Your task to perform on an android device: Open calendar and show me the third week of next month Image 0: 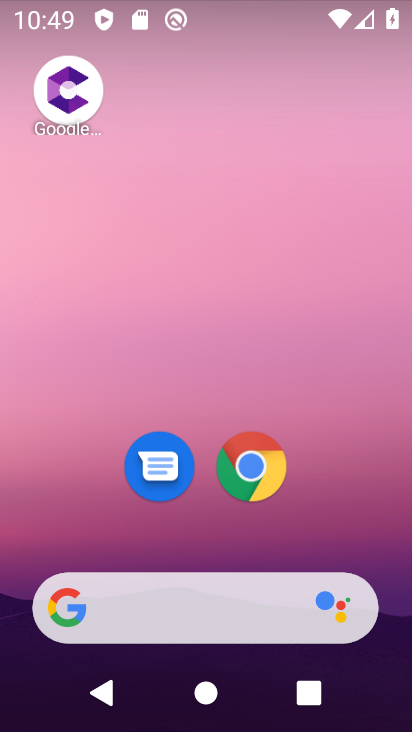
Step 0: drag from (189, 550) to (363, 6)
Your task to perform on an android device: Open calendar and show me the third week of next month Image 1: 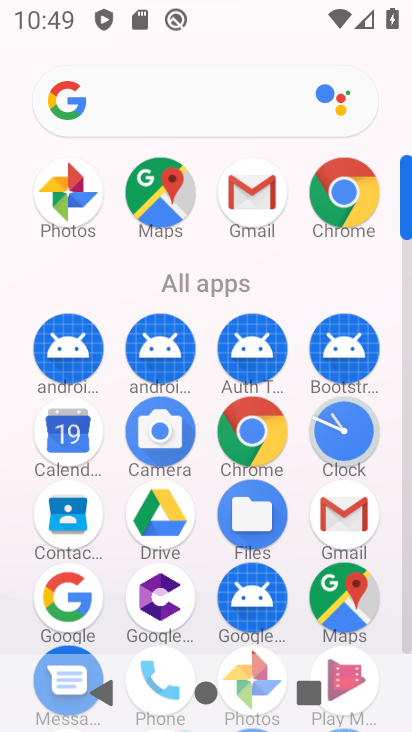
Step 1: click (64, 440)
Your task to perform on an android device: Open calendar and show me the third week of next month Image 2: 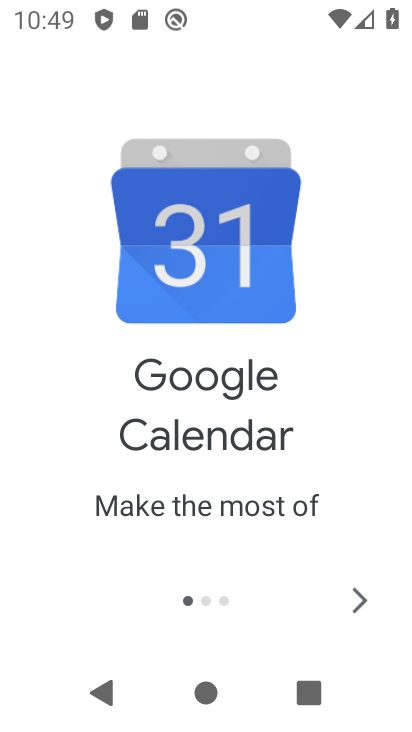
Step 2: click (348, 600)
Your task to perform on an android device: Open calendar and show me the third week of next month Image 3: 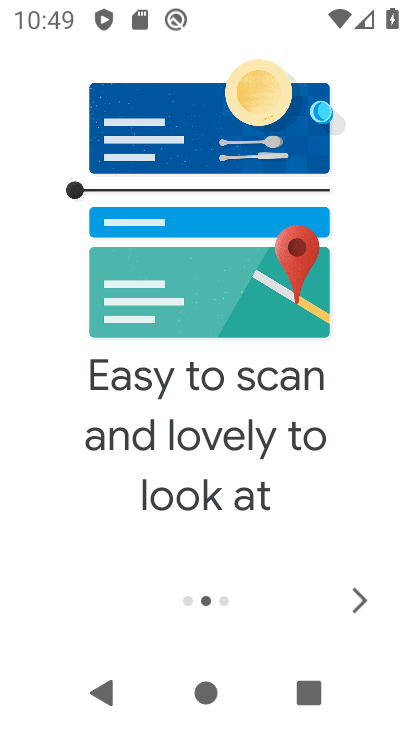
Step 3: click (347, 595)
Your task to perform on an android device: Open calendar and show me the third week of next month Image 4: 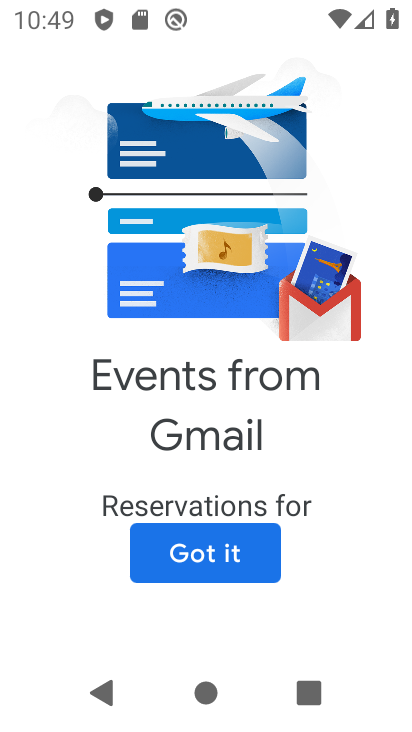
Step 4: click (240, 559)
Your task to perform on an android device: Open calendar and show me the third week of next month Image 5: 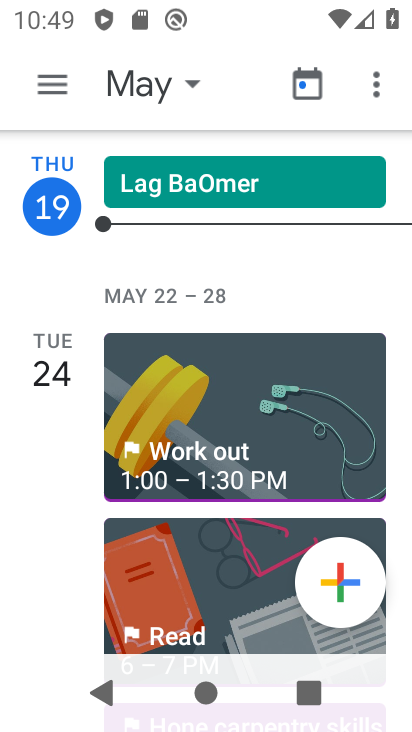
Step 5: click (63, 92)
Your task to perform on an android device: Open calendar and show me the third week of next month Image 6: 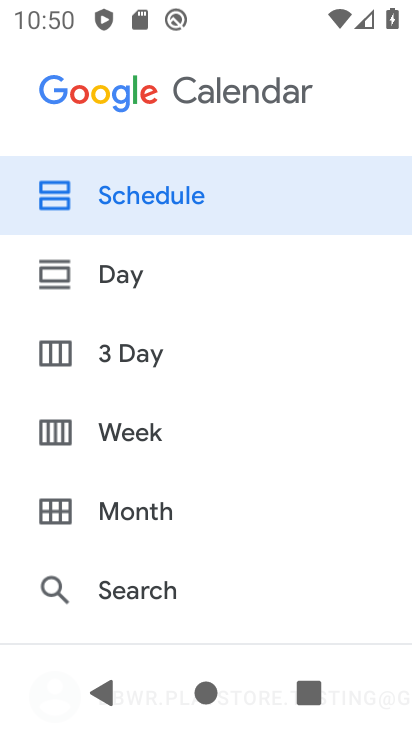
Step 6: click (151, 451)
Your task to perform on an android device: Open calendar and show me the third week of next month Image 7: 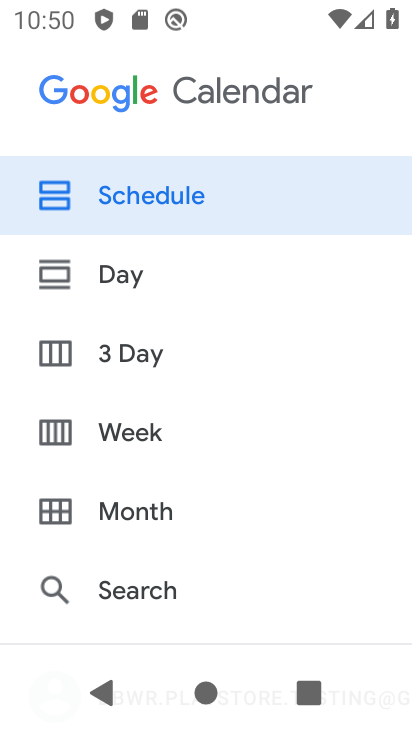
Step 7: click (123, 423)
Your task to perform on an android device: Open calendar and show me the third week of next month Image 8: 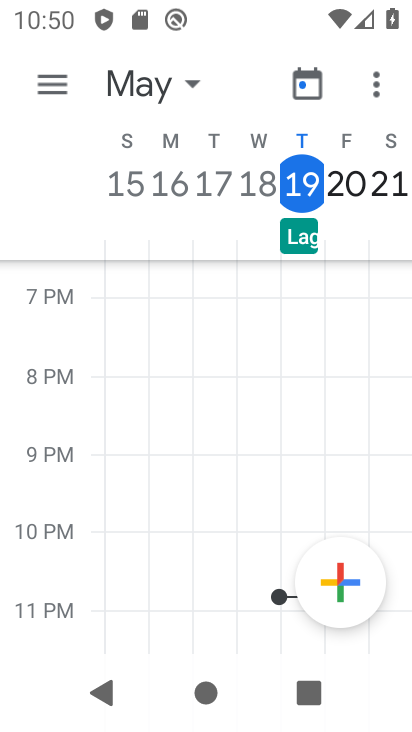
Step 8: task complete